Your task to perform on an android device: Go to Yahoo.com Image 0: 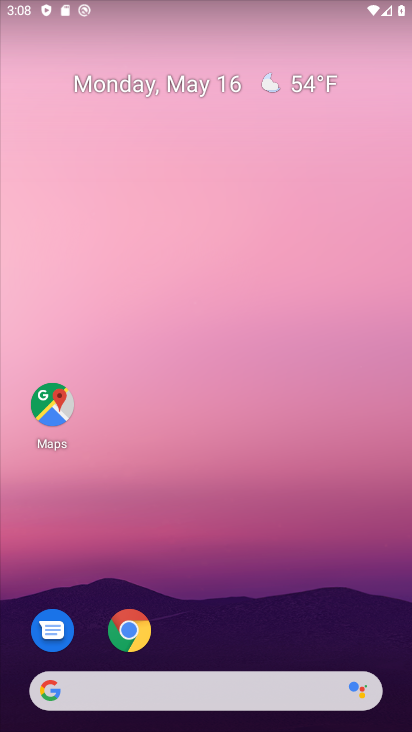
Step 0: click (125, 626)
Your task to perform on an android device: Go to Yahoo.com Image 1: 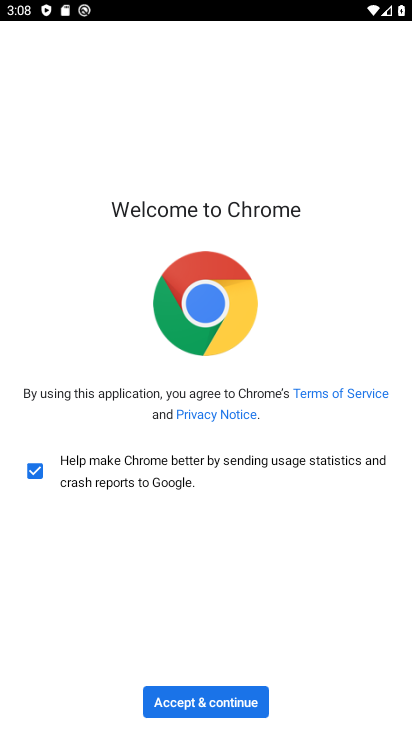
Step 1: click (215, 721)
Your task to perform on an android device: Go to Yahoo.com Image 2: 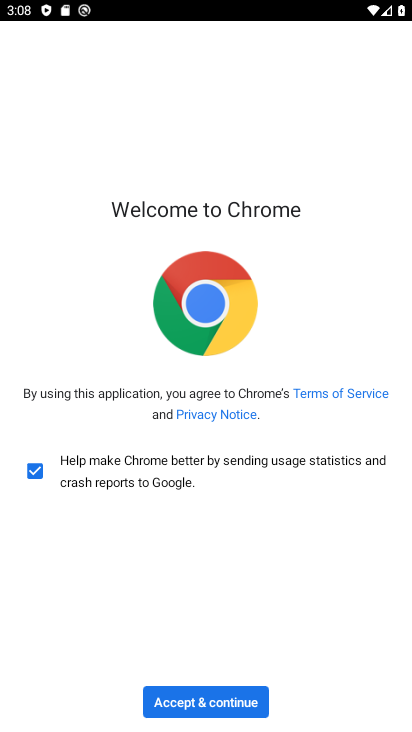
Step 2: click (215, 704)
Your task to perform on an android device: Go to Yahoo.com Image 3: 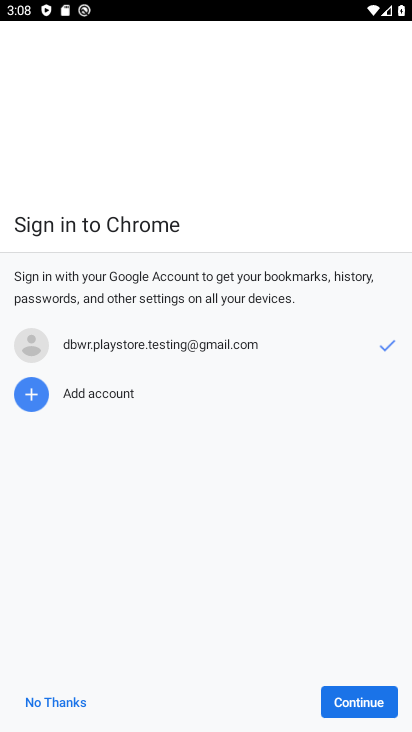
Step 3: click (354, 708)
Your task to perform on an android device: Go to Yahoo.com Image 4: 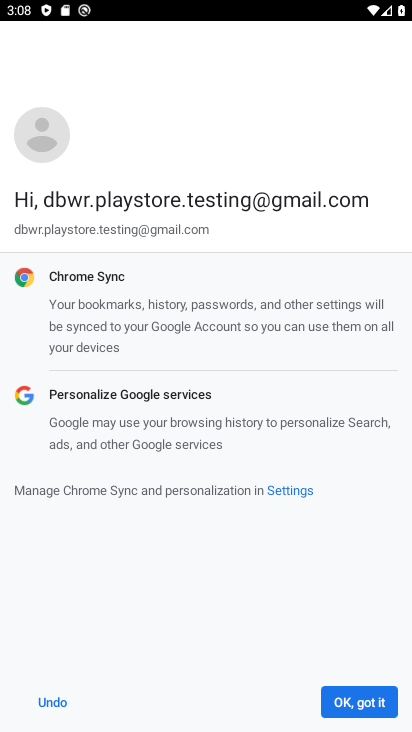
Step 4: click (354, 708)
Your task to perform on an android device: Go to Yahoo.com Image 5: 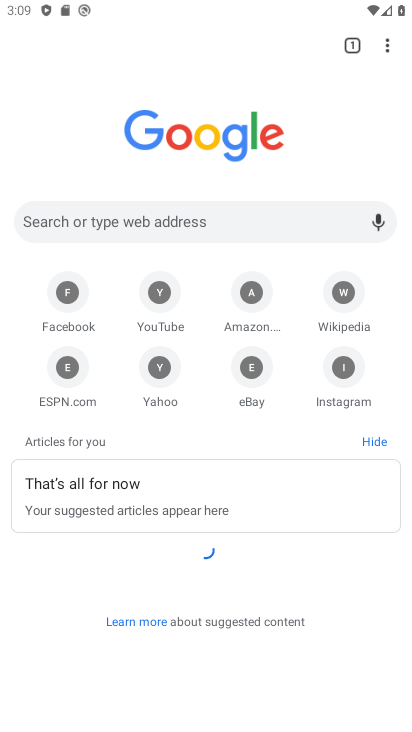
Step 5: click (218, 39)
Your task to perform on an android device: Go to Yahoo.com Image 6: 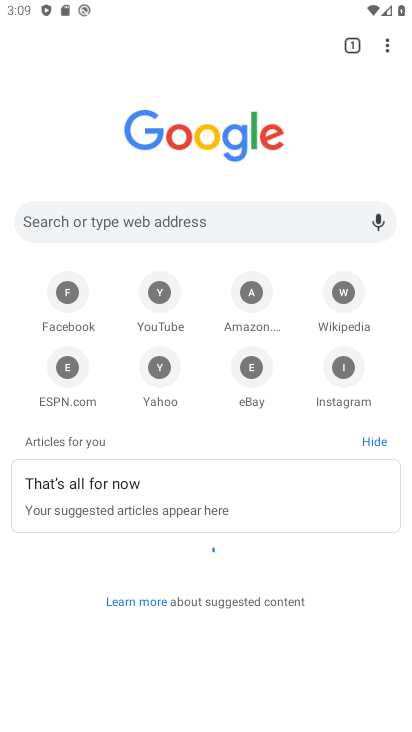
Step 6: click (170, 383)
Your task to perform on an android device: Go to Yahoo.com Image 7: 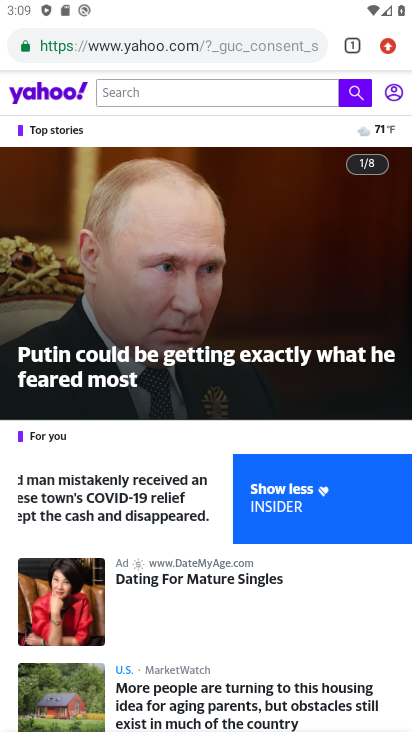
Step 7: task complete